Your task to perform on an android device: change the clock display to digital Image 0: 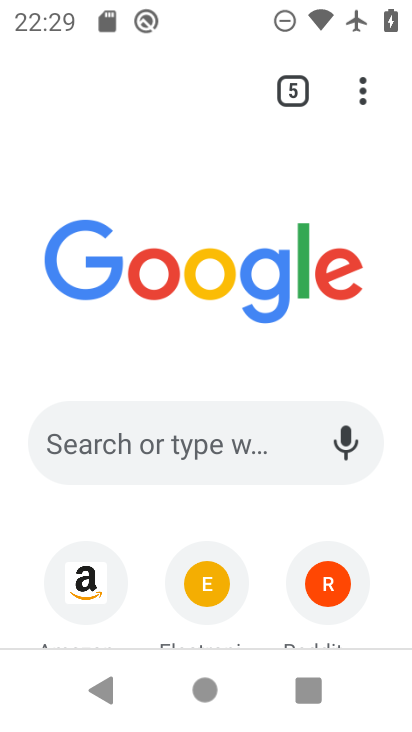
Step 0: press home button
Your task to perform on an android device: change the clock display to digital Image 1: 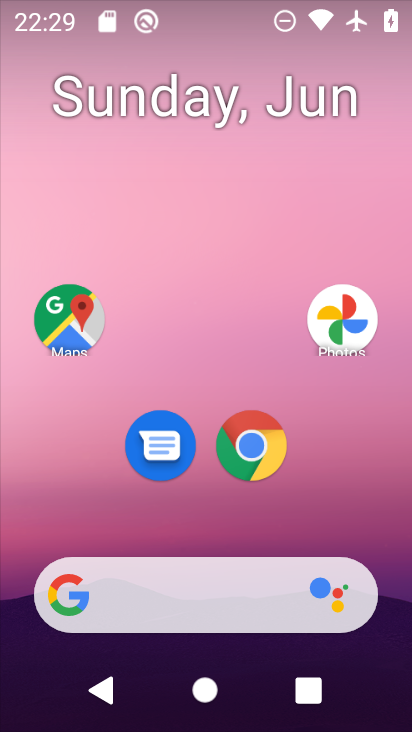
Step 1: drag from (242, 529) to (286, 150)
Your task to perform on an android device: change the clock display to digital Image 2: 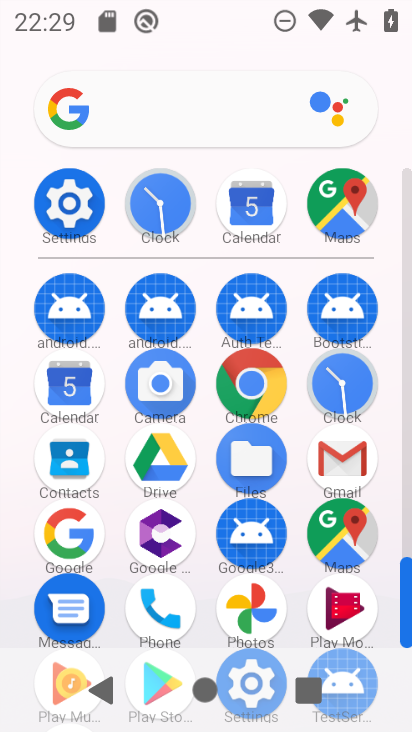
Step 2: click (178, 216)
Your task to perform on an android device: change the clock display to digital Image 3: 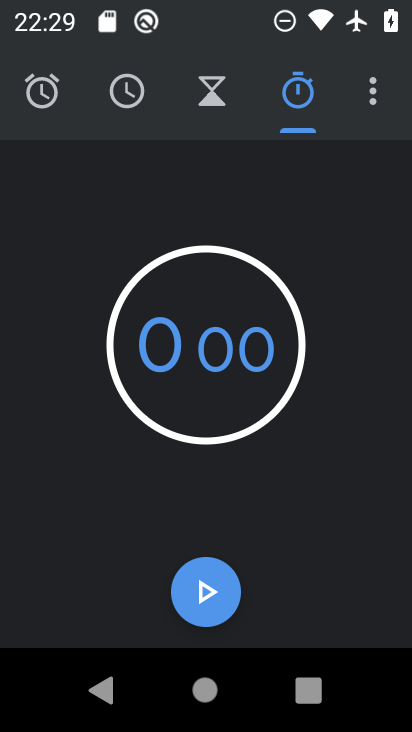
Step 3: click (377, 116)
Your task to perform on an android device: change the clock display to digital Image 4: 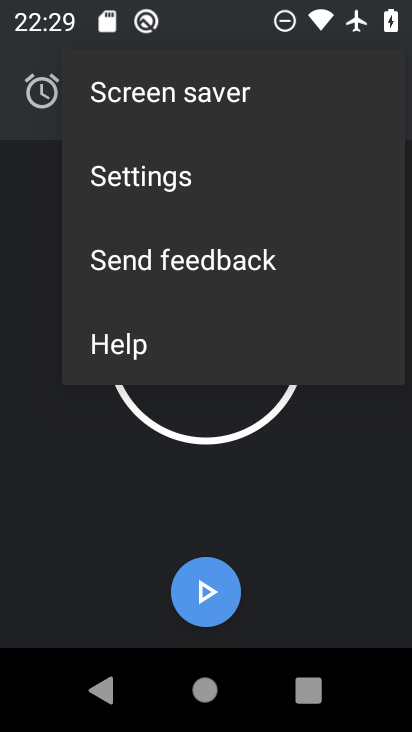
Step 4: click (139, 181)
Your task to perform on an android device: change the clock display to digital Image 5: 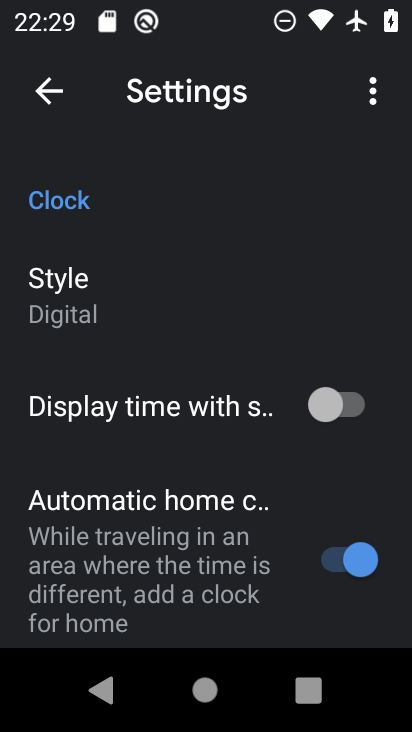
Step 5: click (55, 277)
Your task to perform on an android device: change the clock display to digital Image 6: 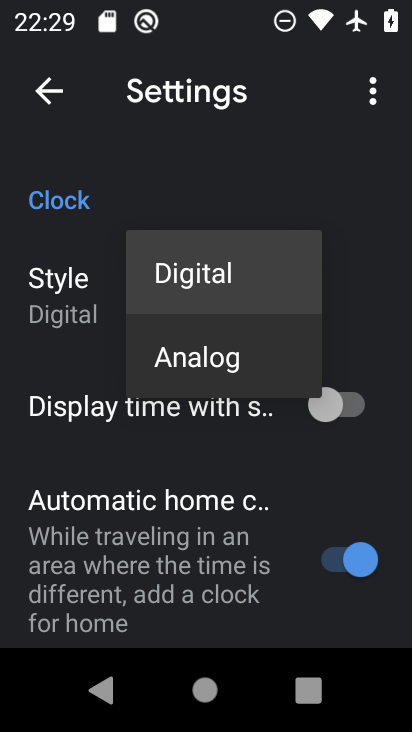
Step 6: task complete